Your task to perform on an android device: change timer sound Image 0: 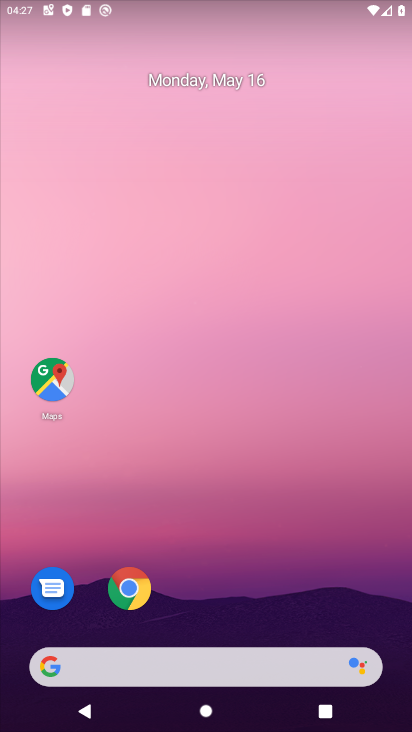
Step 0: drag from (230, 524) to (230, 16)
Your task to perform on an android device: change timer sound Image 1: 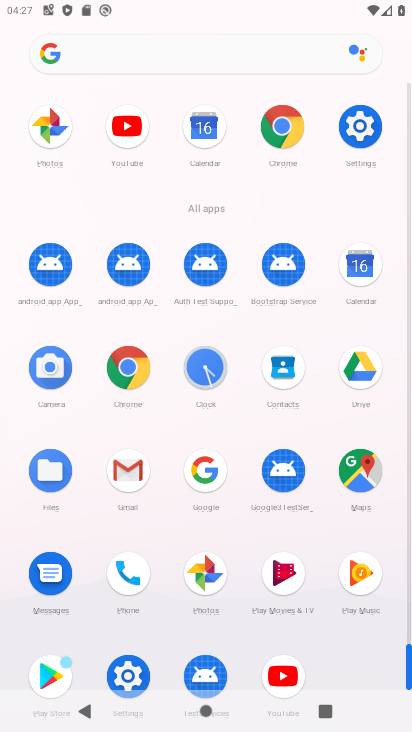
Step 1: drag from (13, 563) to (18, 241)
Your task to perform on an android device: change timer sound Image 2: 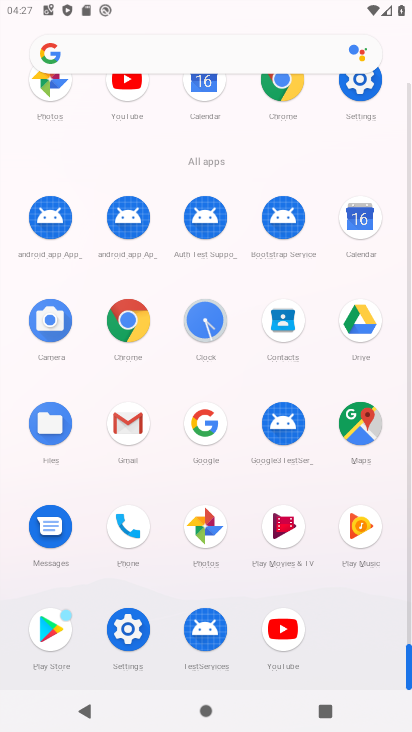
Step 2: drag from (15, 573) to (23, 320)
Your task to perform on an android device: change timer sound Image 3: 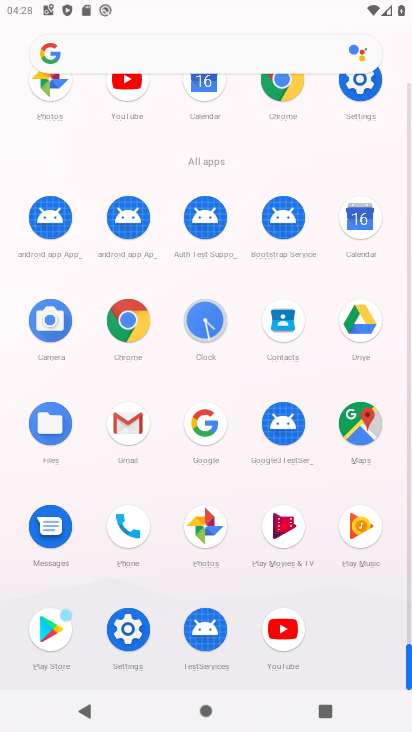
Step 3: click (207, 315)
Your task to perform on an android device: change timer sound Image 4: 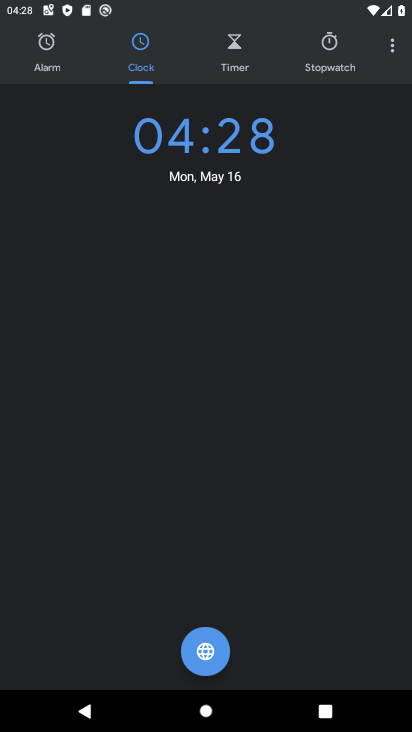
Step 4: drag from (393, 40) to (349, 77)
Your task to perform on an android device: change timer sound Image 5: 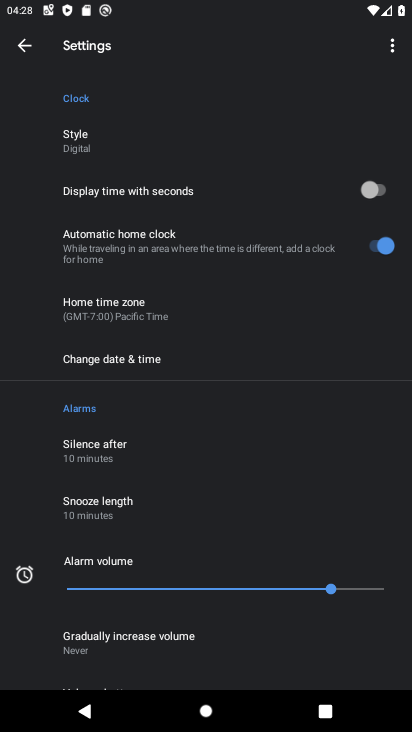
Step 5: drag from (253, 454) to (253, 141)
Your task to perform on an android device: change timer sound Image 6: 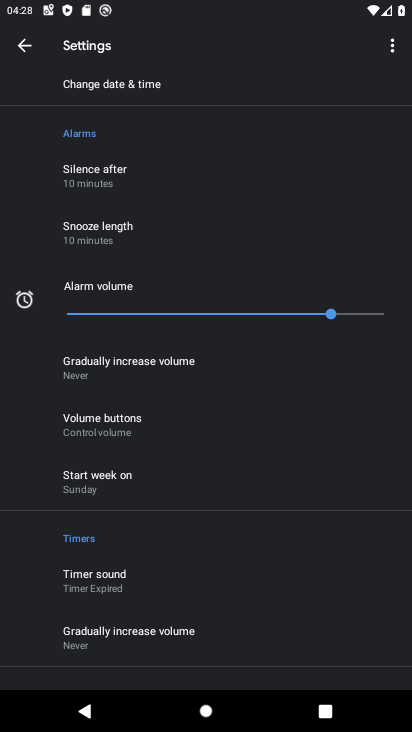
Step 6: drag from (253, 141) to (256, 508)
Your task to perform on an android device: change timer sound Image 7: 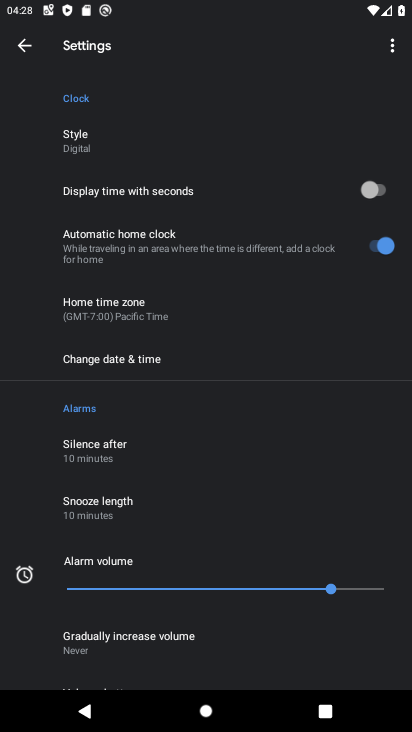
Step 7: drag from (237, 464) to (237, 165)
Your task to perform on an android device: change timer sound Image 8: 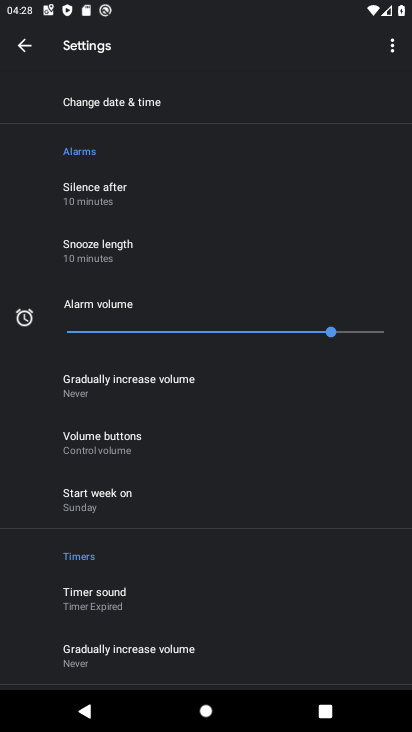
Step 8: drag from (215, 544) to (240, 150)
Your task to perform on an android device: change timer sound Image 9: 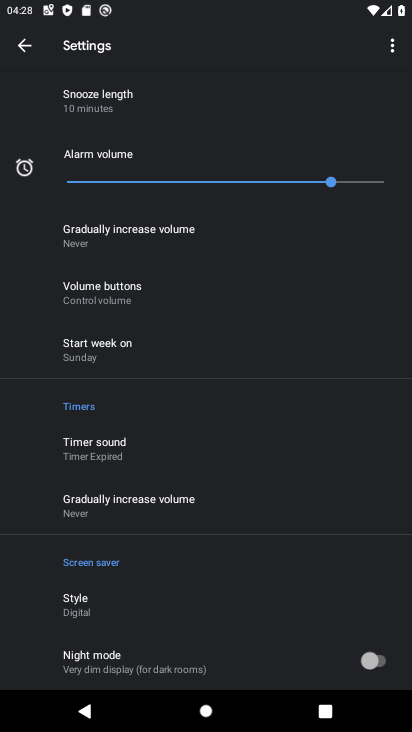
Step 9: click (129, 449)
Your task to perform on an android device: change timer sound Image 10: 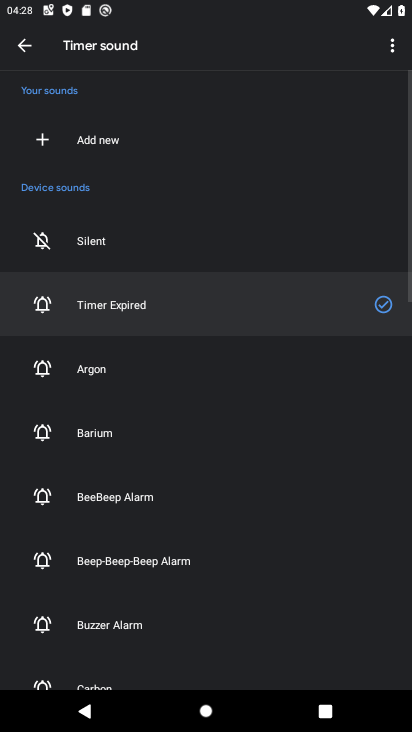
Step 10: click (167, 493)
Your task to perform on an android device: change timer sound Image 11: 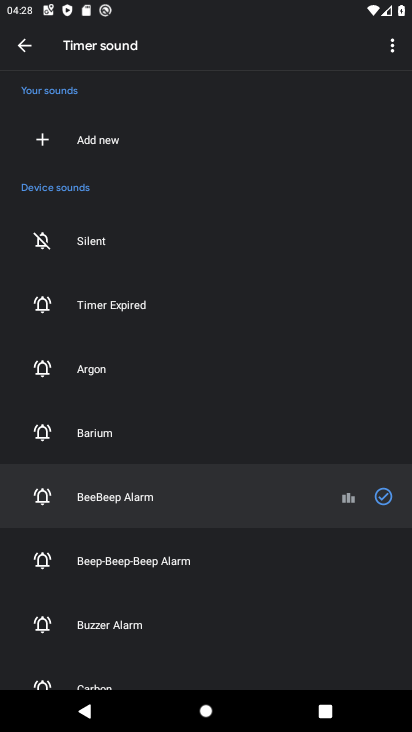
Step 11: task complete